Your task to perform on an android device: manage bookmarks in the chrome app Image 0: 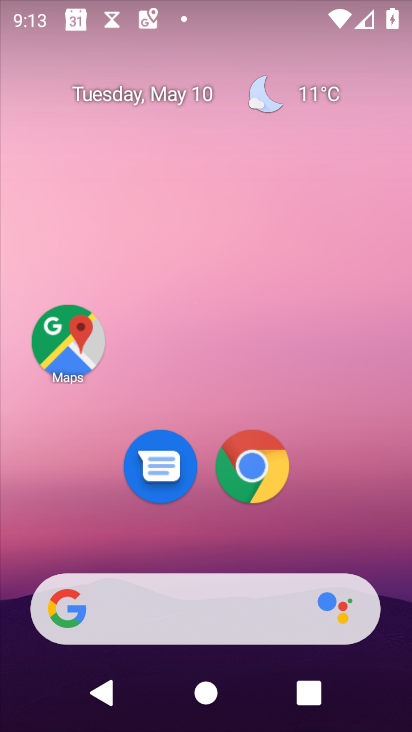
Step 0: click (246, 476)
Your task to perform on an android device: manage bookmarks in the chrome app Image 1: 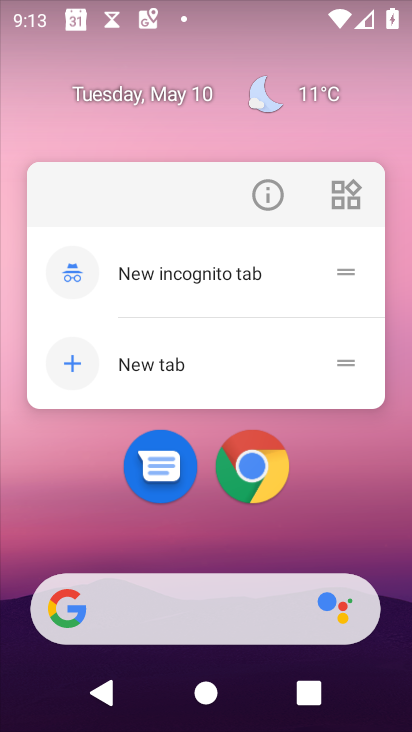
Step 1: click (249, 449)
Your task to perform on an android device: manage bookmarks in the chrome app Image 2: 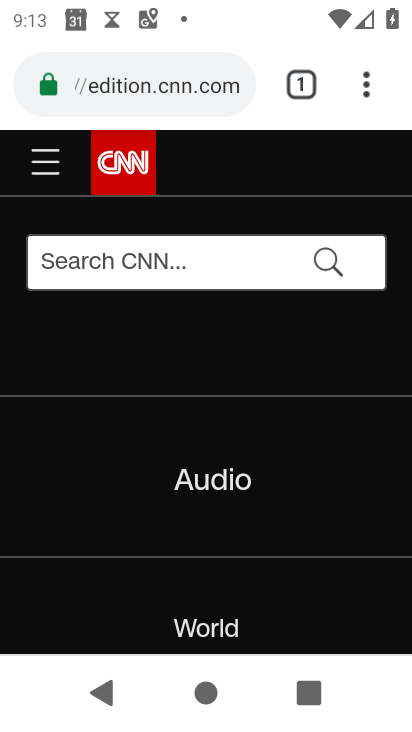
Step 2: click (359, 81)
Your task to perform on an android device: manage bookmarks in the chrome app Image 3: 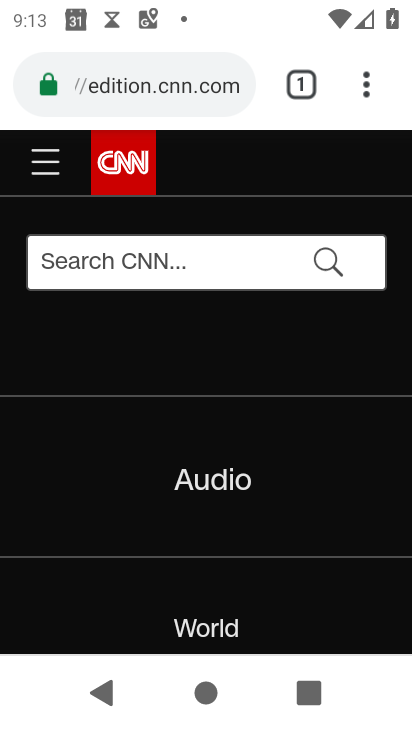
Step 3: click (359, 81)
Your task to perform on an android device: manage bookmarks in the chrome app Image 4: 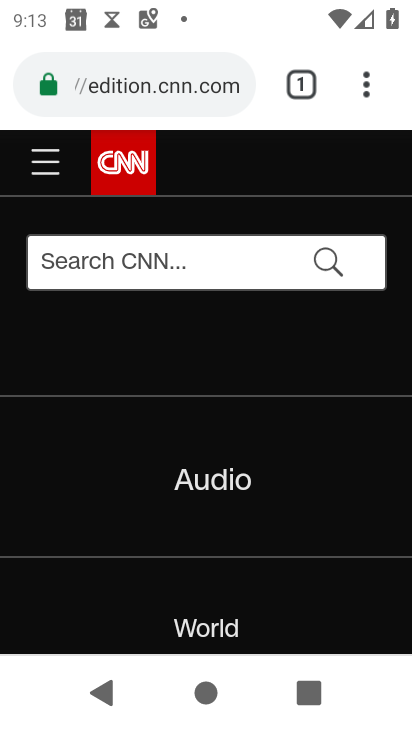
Step 4: click (361, 85)
Your task to perform on an android device: manage bookmarks in the chrome app Image 5: 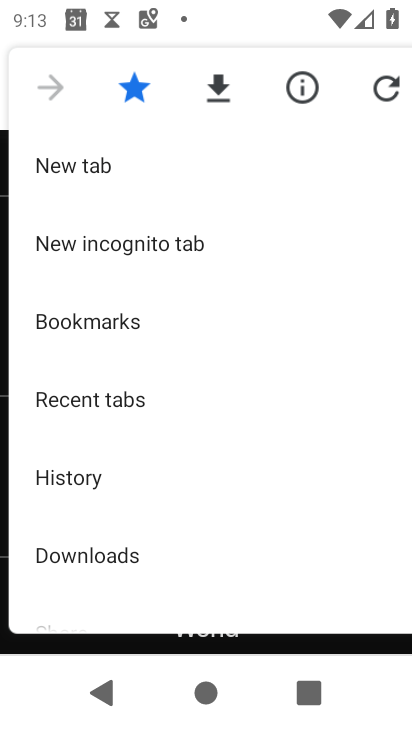
Step 5: drag from (213, 514) to (209, 473)
Your task to perform on an android device: manage bookmarks in the chrome app Image 6: 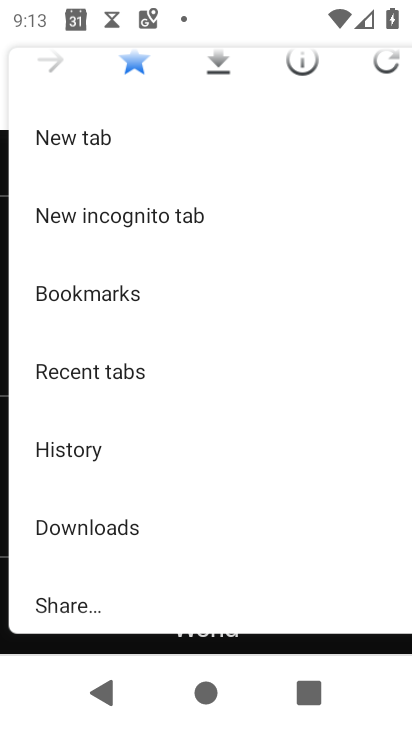
Step 6: click (202, 292)
Your task to perform on an android device: manage bookmarks in the chrome app Image 7: 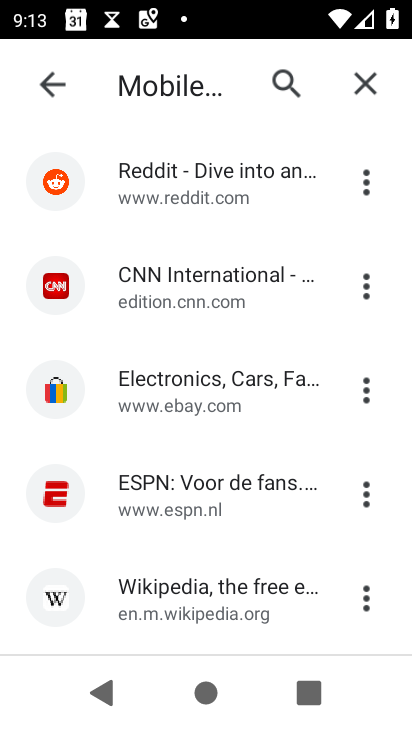
Step 7: click (368, 188)
Your task to perform on an android device: manage bookmarks in the chrome app Image 8: 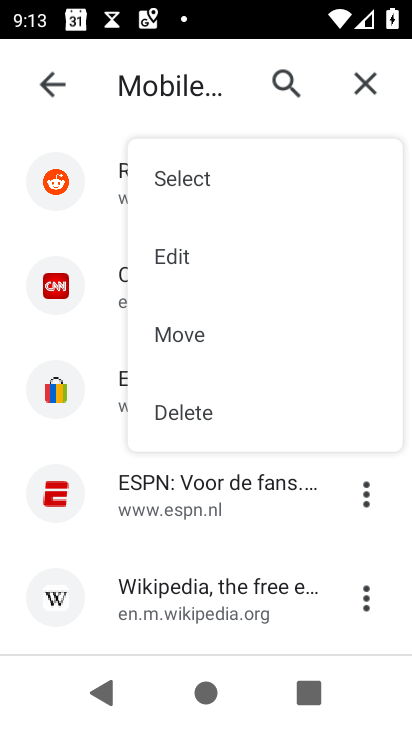
Step 8: click (198, 403)
Your task to perform on an android device: manage bookmarks in the chrome app Image 9: 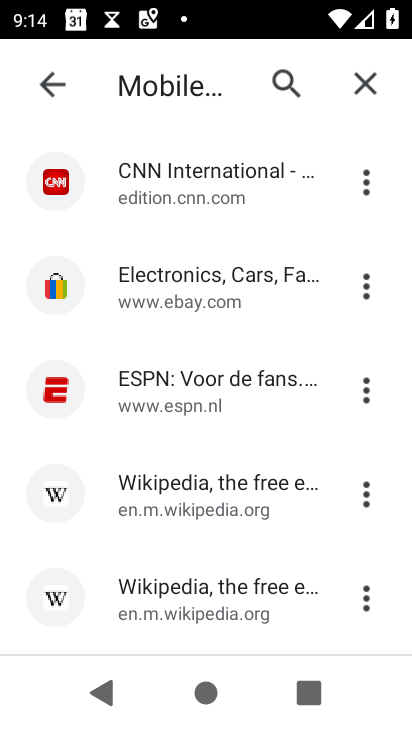
Step 9: task complete